Your task to perform on an android device: Open the web browser Image 0: 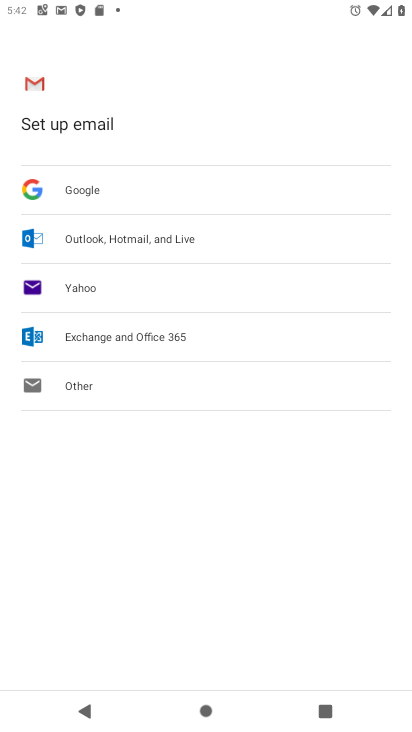
Step 0: press home button
Your task to perform on an android device: Open the web browser Image 1: 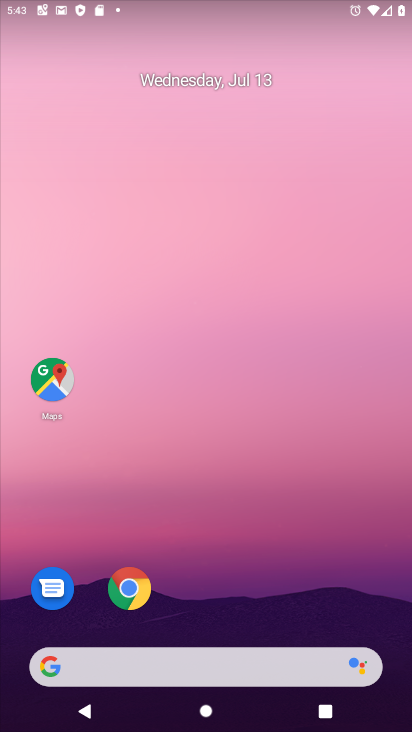
Step 1: click (133, 593)
Your task to perform on an android device: Open the web browser Image 2: 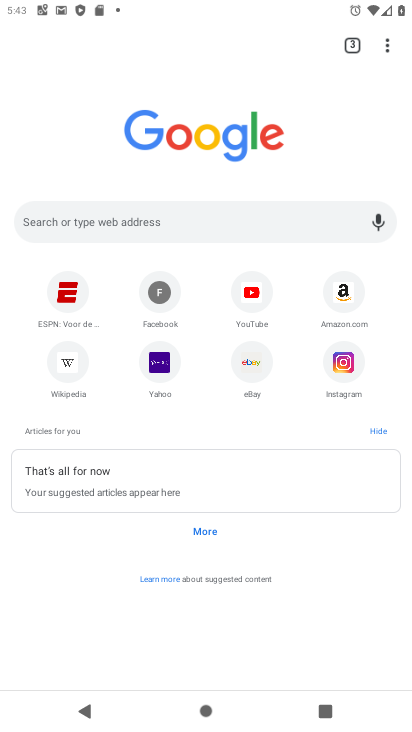
Step 2: task complete